Your task to perform on an android device: Open calendar and show me the third week of next month Image 0: 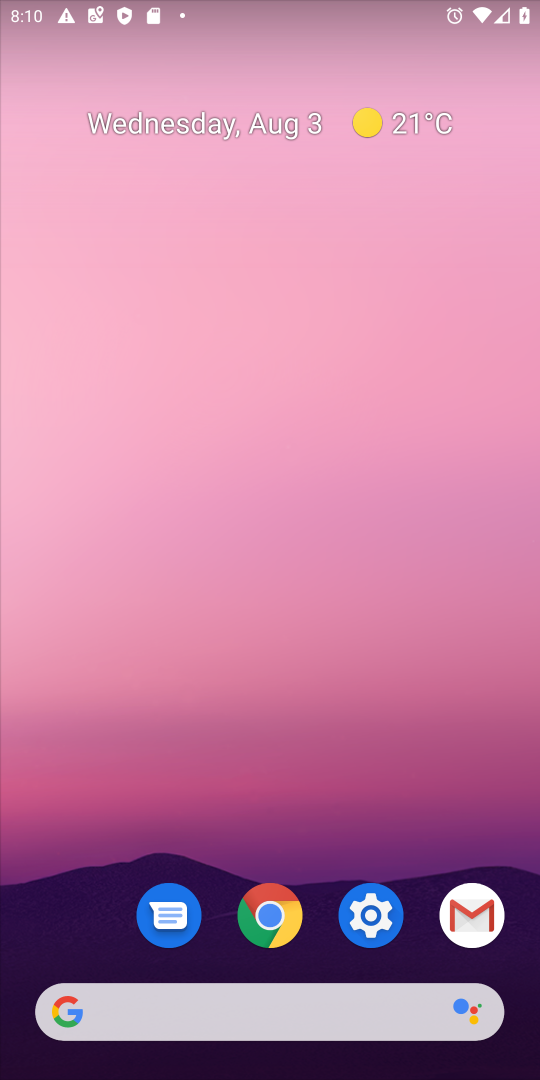
Step 0: drag from (369, 1030) to (359, 298)
Your task to perform on an android device: Open calendar and show me the third week of next month Image 1: 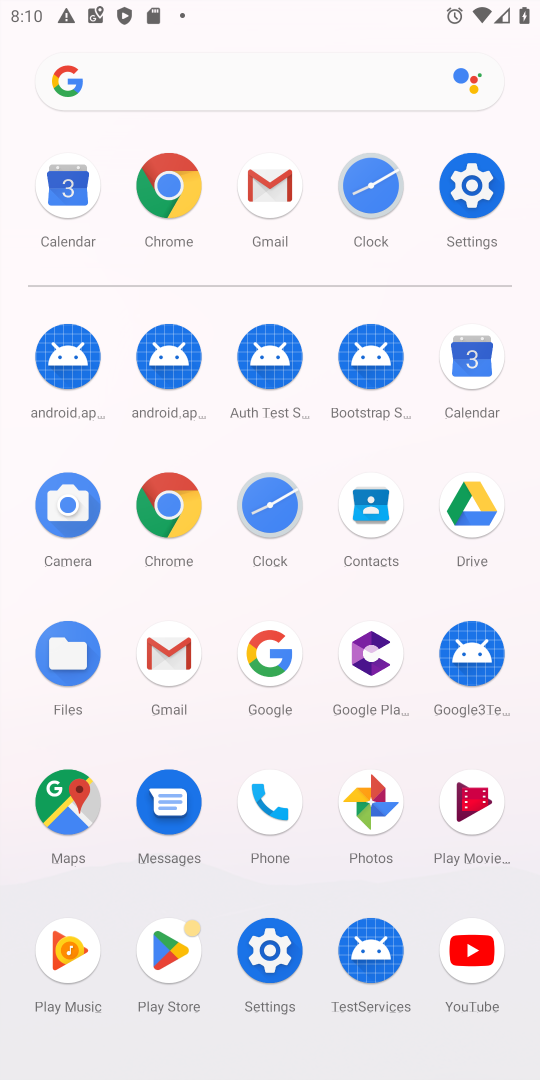
Step 1: click (458, 372)
Your task to perform on an android device: Open calendar and show me the third week of next month Image 2: 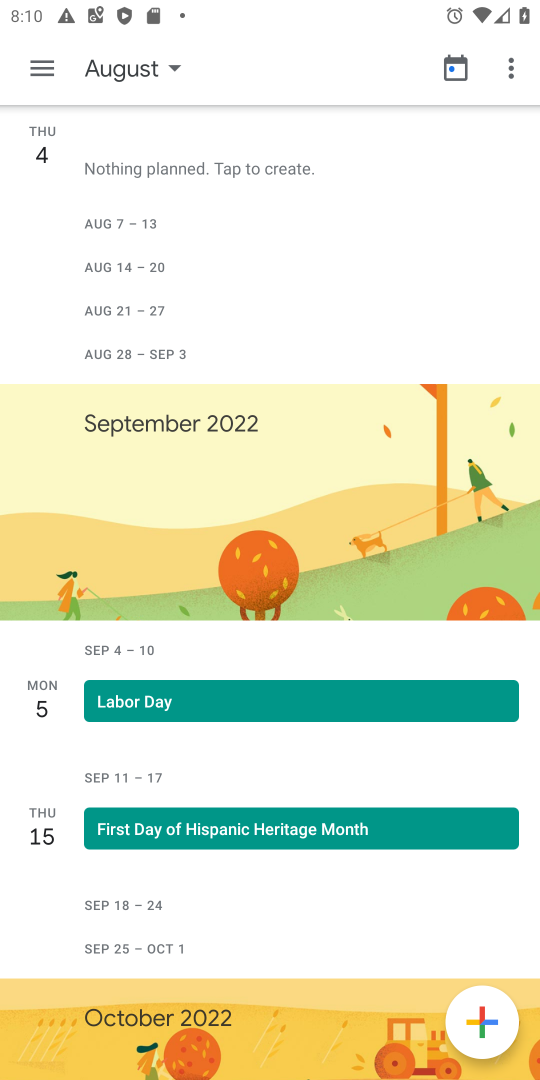
Step 2: click (31, 67)
Your task to perform on an android device: Open calendar and show me the third week of next month Image 3: 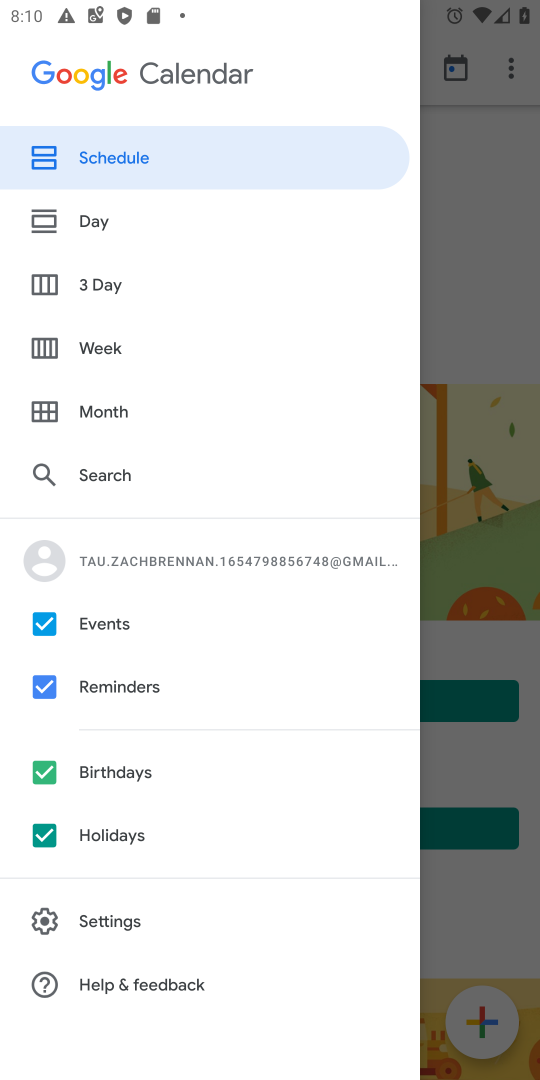
Step 3: click (129, 428)
Your task to perform on an android device: Open calendar and show me the third week of next month Image 4: 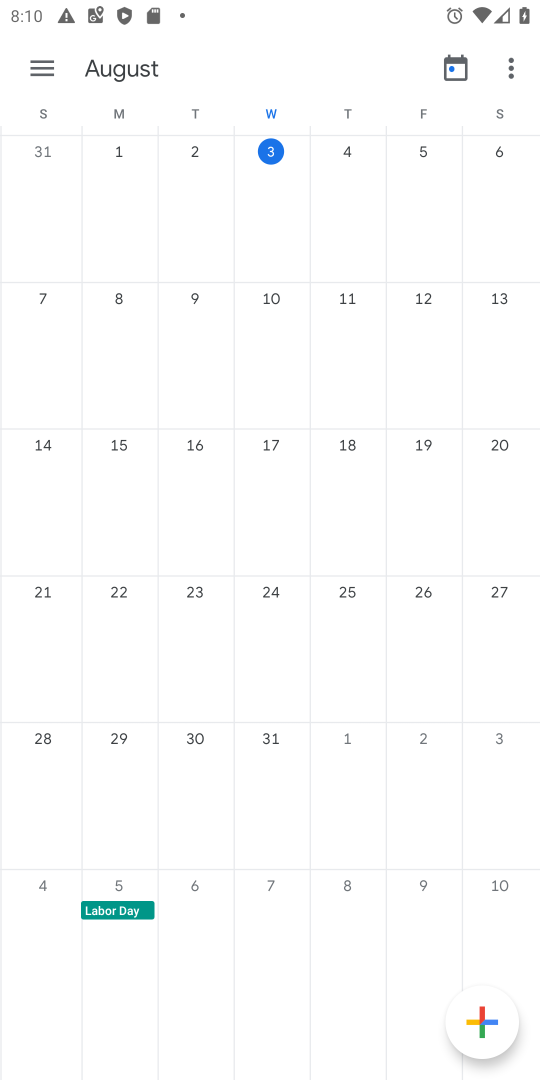
Step 4: drag from (496, 512) to (0, 457)
Your task to perform on an android device: Open calendar and show me the third week of next month Image 5: 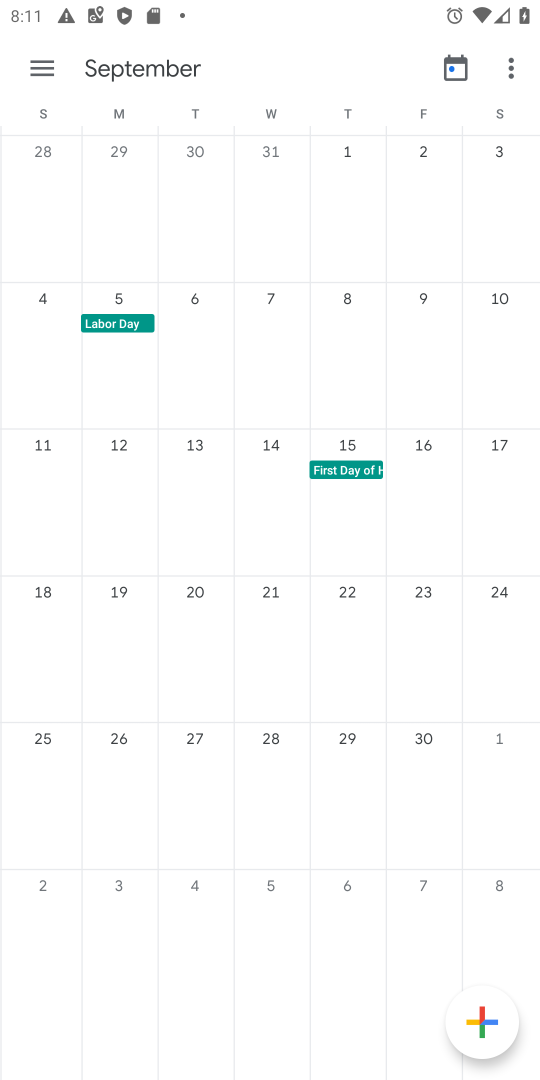
Step 5: click (116, 531)
Your task to perform on an android device: Open calendar and show me the third week of next month Image 6: 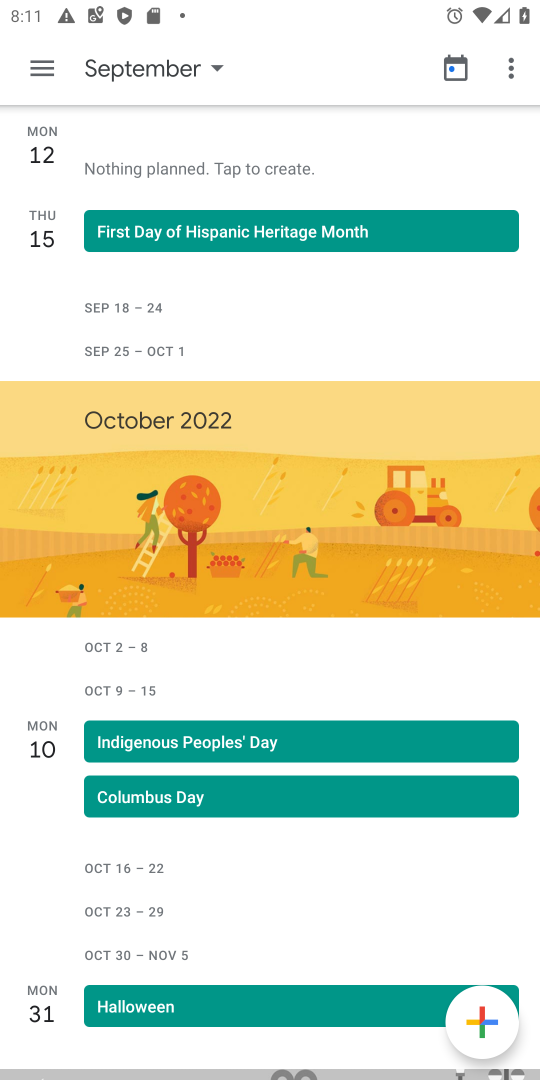
Step 6: task complete